Your task to perform on an android device: Open Yahoo.com Image 0: 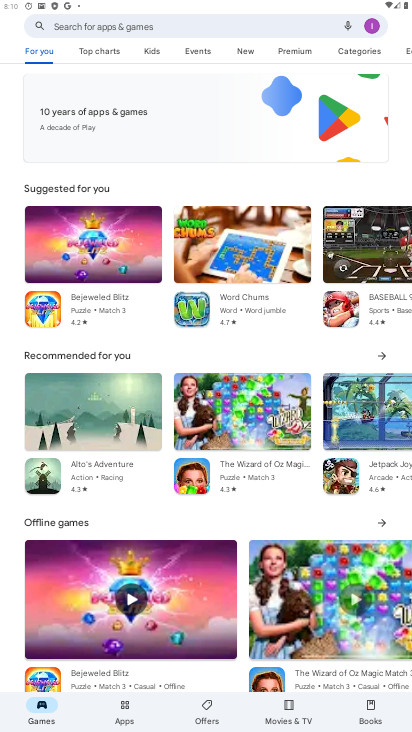
Step 0: press home button
Your task to perform on an android device: Open Yahoo.com Image 1: 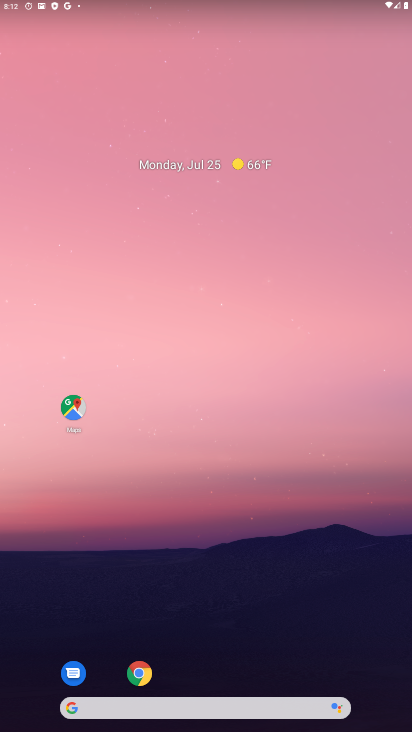
Step 1: drag from (187, 497) to (182, 33)
Your task to perform on an android device: Open Yahoo.com Image 2: 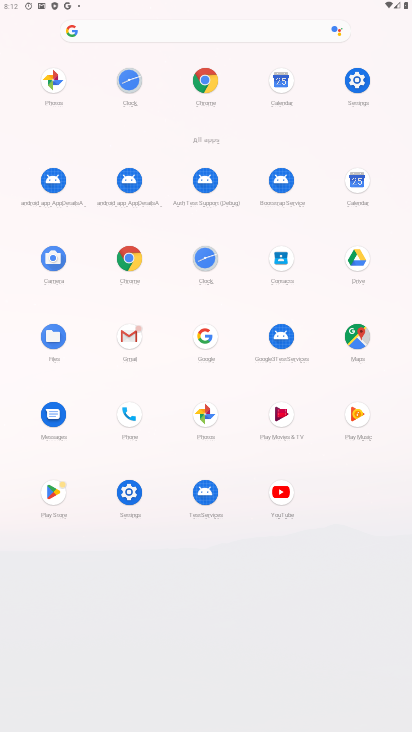
Step 2: click (98, 36)
Your task to perform on an android device: Open Yahoo.com Image 3: 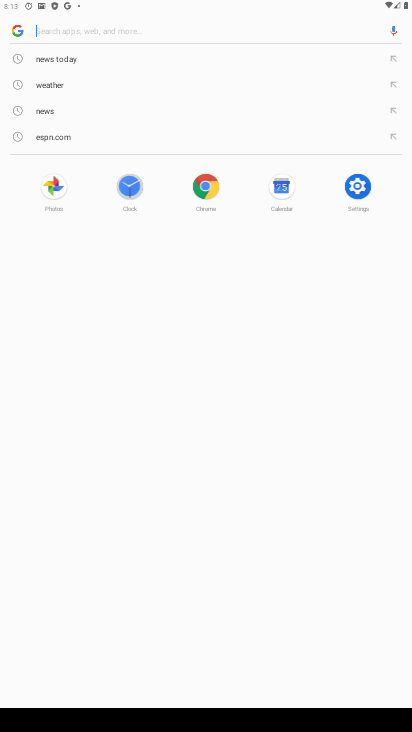
Step 3: type "Yahoo.com"
Your task to perform on an android device: Open Yahoo.com Image 4: 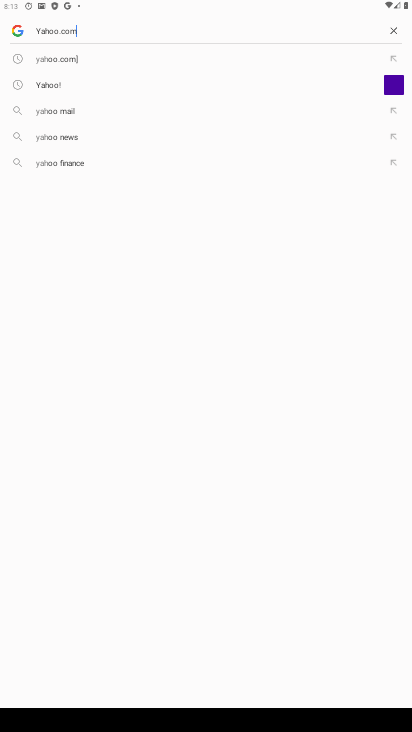
Step 4: type ""
Your task to perform on an android device: Open Yahoo.com Image 5: 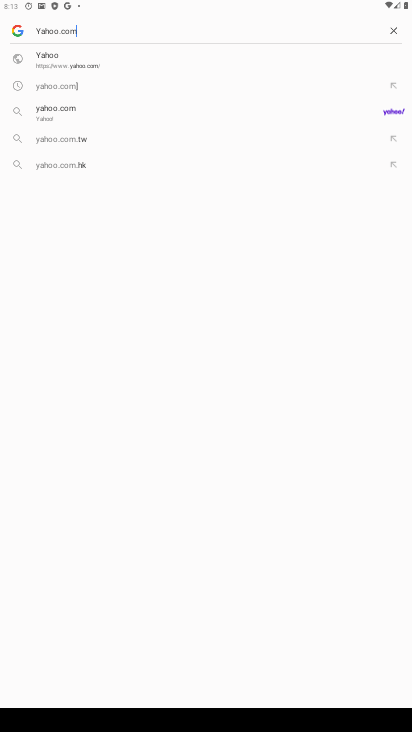
Step 5: click (86, 105)
Your task to perform on an android device: Open Yahoo.com Image 6: 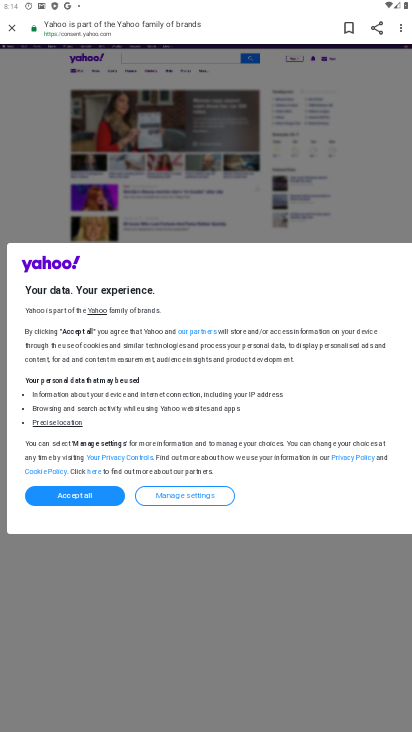
Step 6: task complete